Your task to perform on an android device: see creations saved in the google photos Image 0: 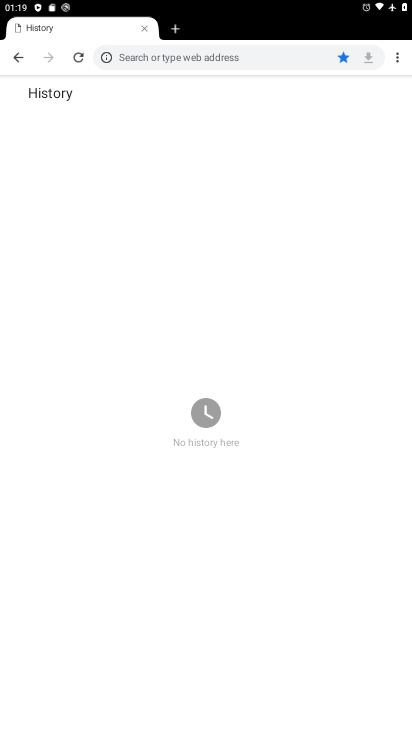
Step 0: press home button
Your task to perform on an android device: see creations saved in the google photos Image 1: 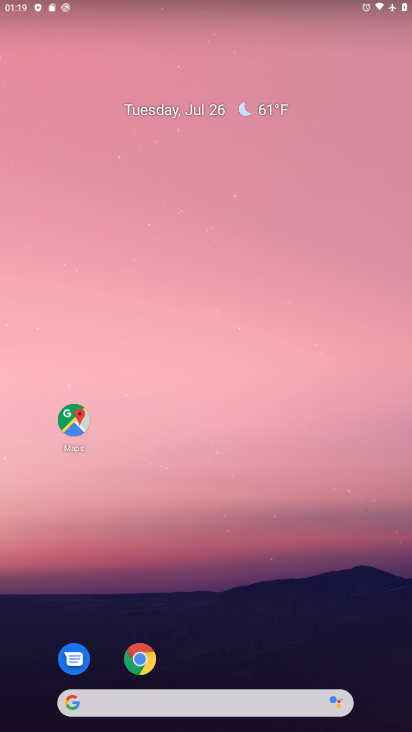
Step 1: click (202, 137)
Your task to perform on an android device: see creations saved in the google photos Image 2: 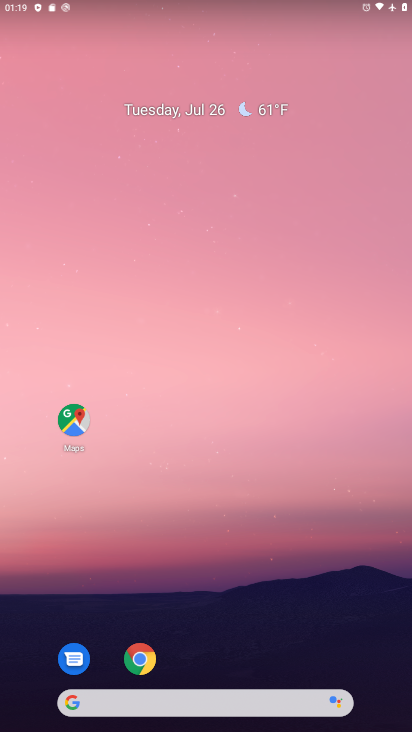
Step 2: drag from (339, 636) to (206, 169)
Your task to perform on an android device: see creations saved in the google photos Image 3: 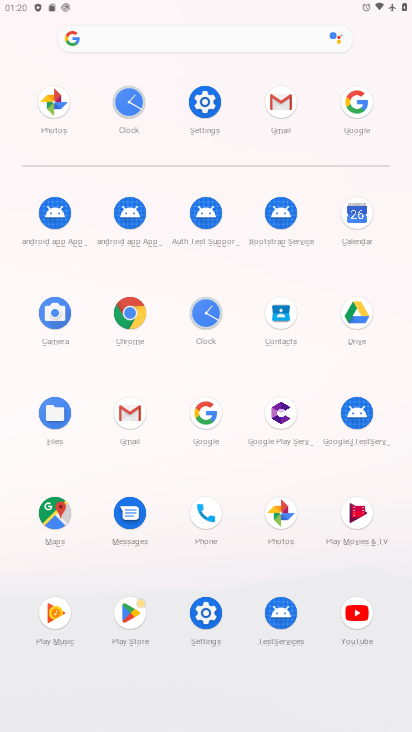
Step 3: click (276, 506)
Your task to perform on an android device: see creations saved in the google photos Image 4: 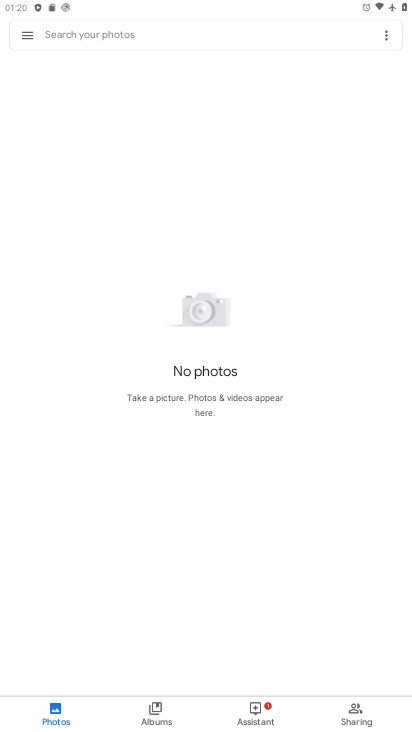
Step 4: click (154, 714)
Your task to perform on an android device: see creations saved in the google photos Image 5: 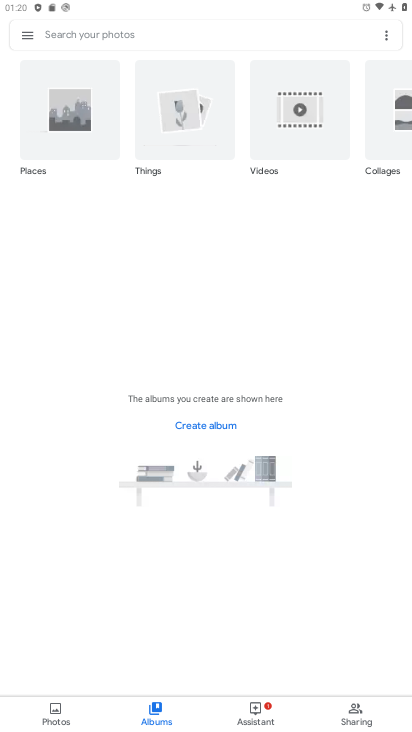
Step 5: task complete